Your task to perform on an android device: turn on location history Image 0: 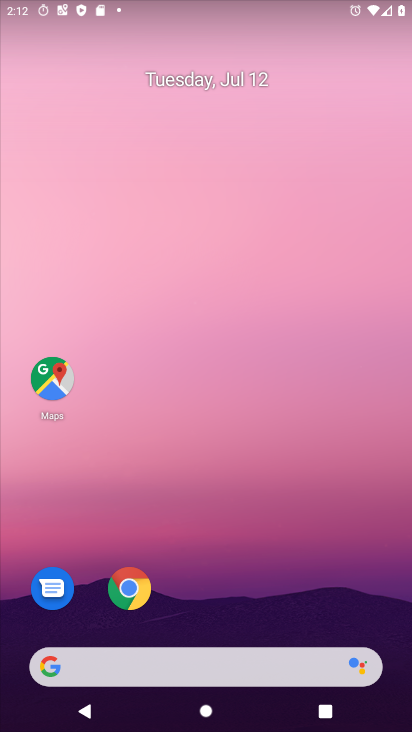
Step 0: click (207, 79)
Your task to perform on an android device: turn on location history Image 1: 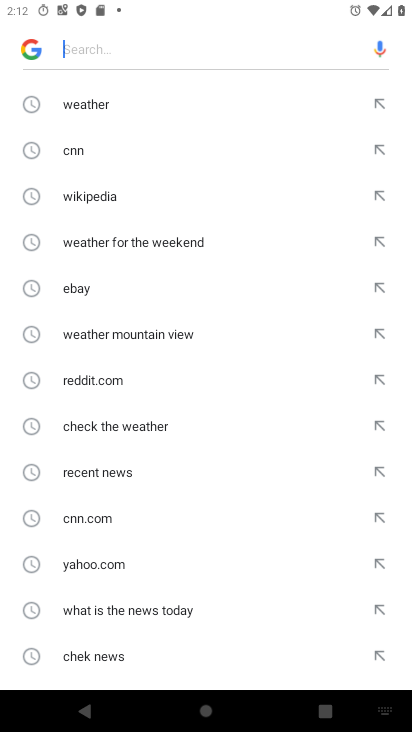
Step 1: press home button
Your task to perform on an android device: turn on location history Image 2: 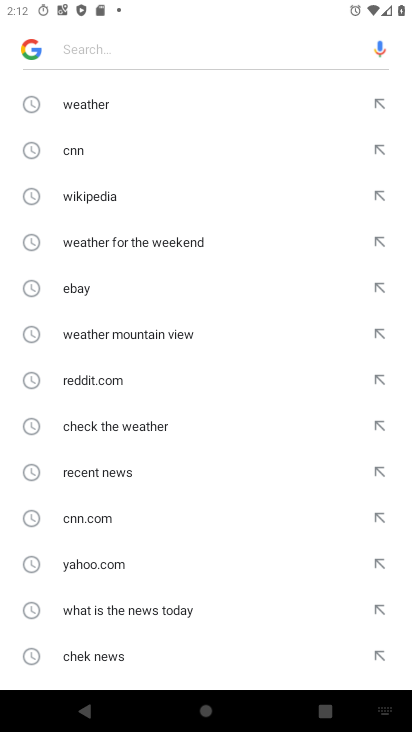
Step 2: press home button
Your task to perform on an android device: turn on location history Image 3: 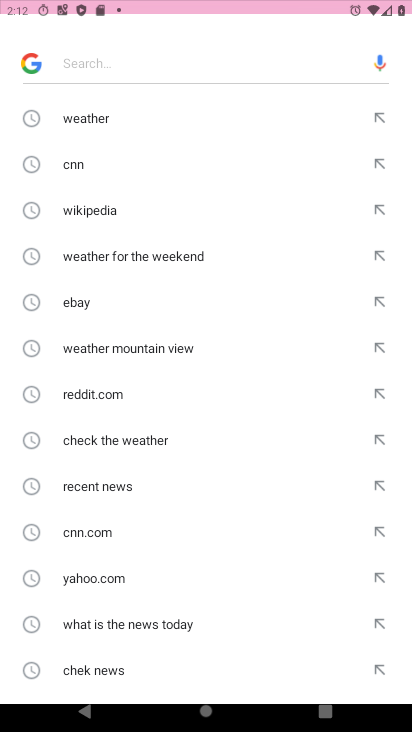
Step 3: drag from (190, 533) to (248, 2)
Your task to perform on an android device: turn on location history Image 4: 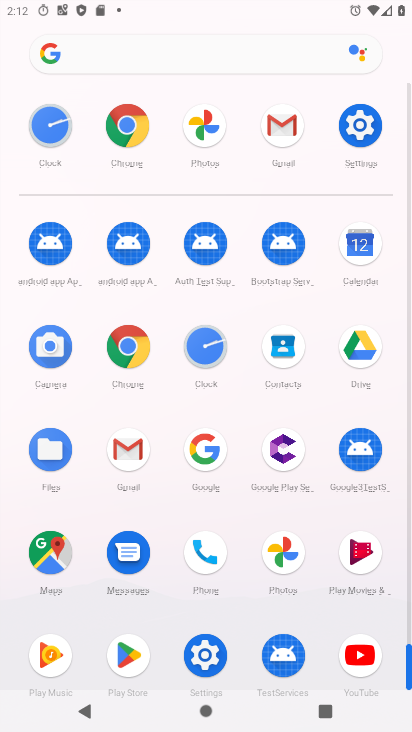
Step 4: click (198, 656)
Your task to perform on an android device: turn on location history Image 5: 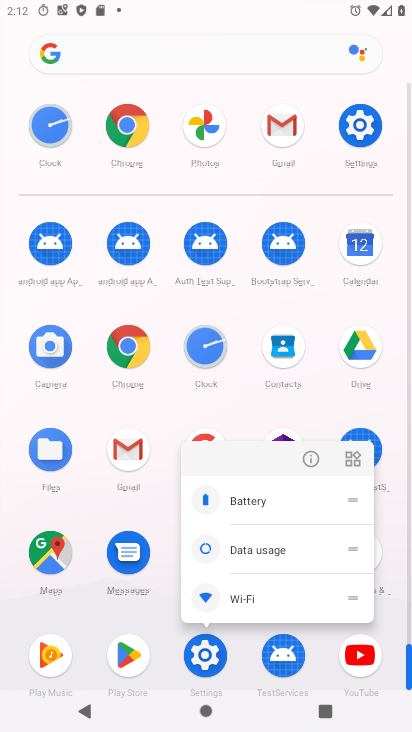
Step 5: click (311, 463)
Your task to perform on an android device: turn on location history Image 6: 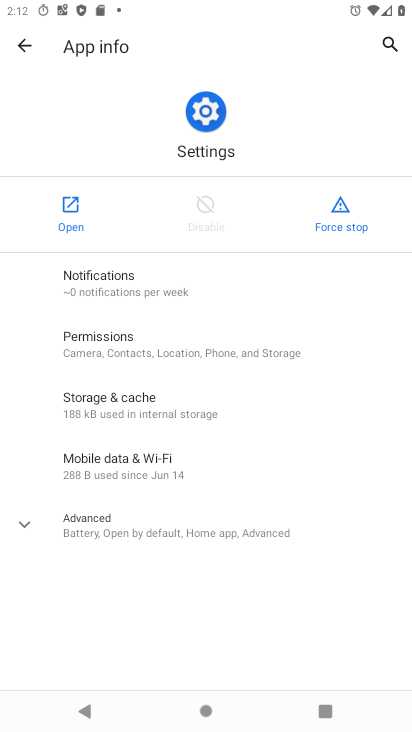
Step 6: click (70, 200)
Your task to perform on an android device: turn on location history Image 7: 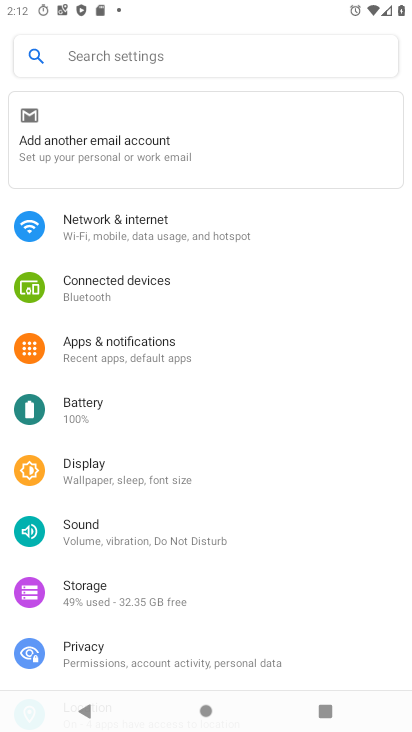
Step 7: drag from (153, 618) to (304, 0)
Your task to perform on an android device: turn on location history Image 8: 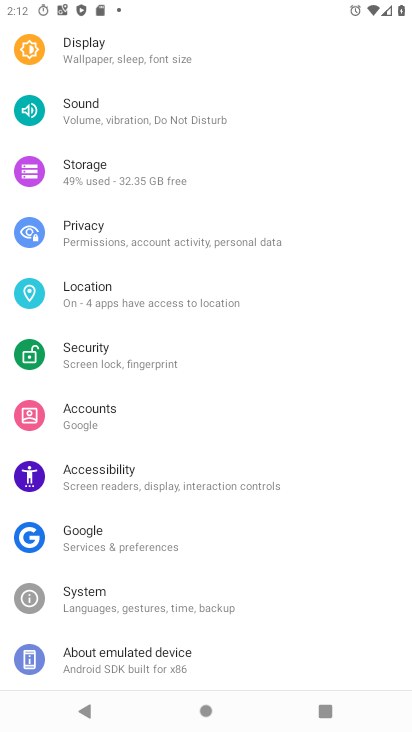
Step 8: drag from (154, 457) to (249, 137)
Your task to perform on an android device: turn on location history Image 9: 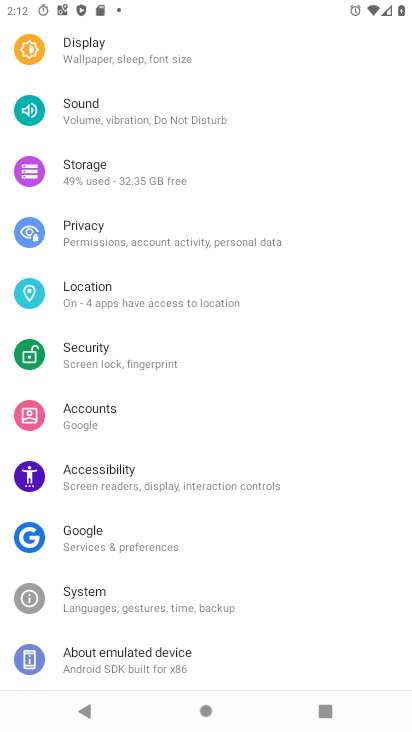
Step 9: click (94, 293)
Your task to perform on an android device: turn on location history Image 10: 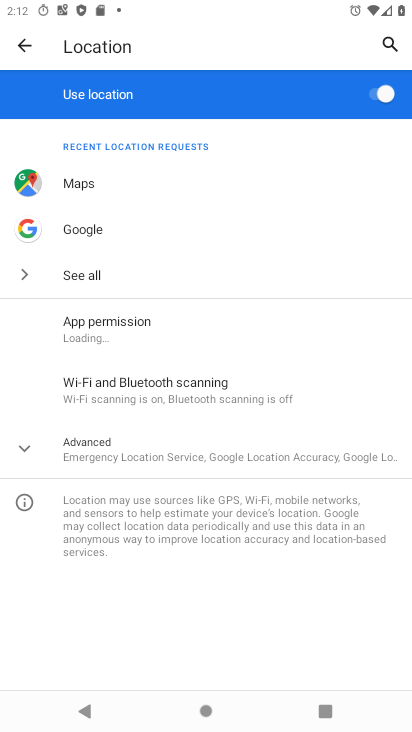
Step 10: click (179, 448)
Your task to perform on an android device: turn on location history Image 11: 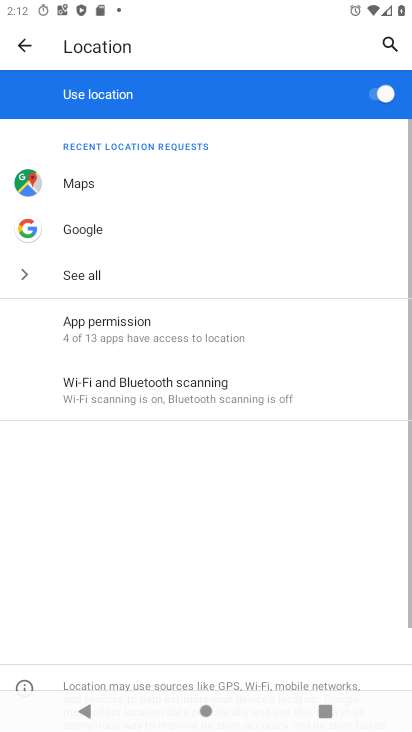
Step 11: drag from (223, 448) to (309, 241)
Your task to perform on an android device: turn on location history Image 12: 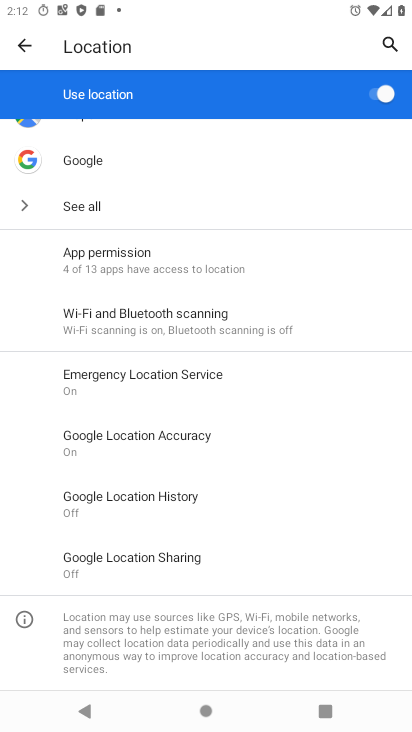
Step 12: click (141, 515)
Your task to perform on an android device: turn on location history Image 13: 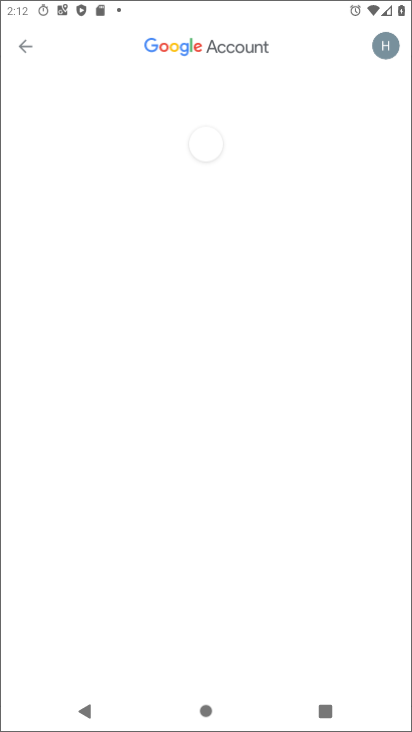
Step 13: drag from (242, 560) to (292, 229)
Your task to perform on an android device: turn on location history Image 14: 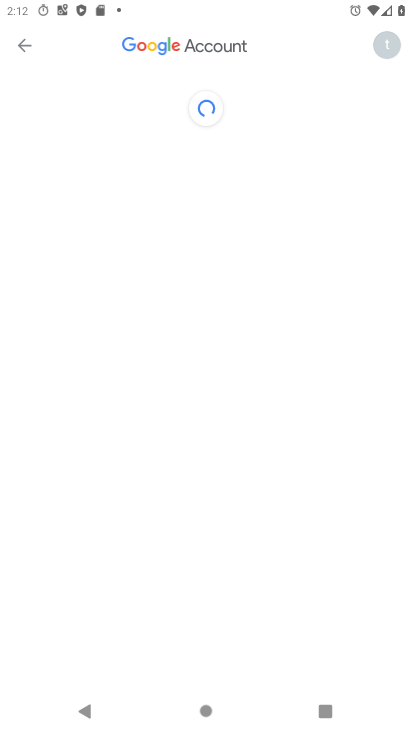
Step 14: drag from (323, 162) to (324, 528)
Your task to perform on an android device: turn on location history Image 15: 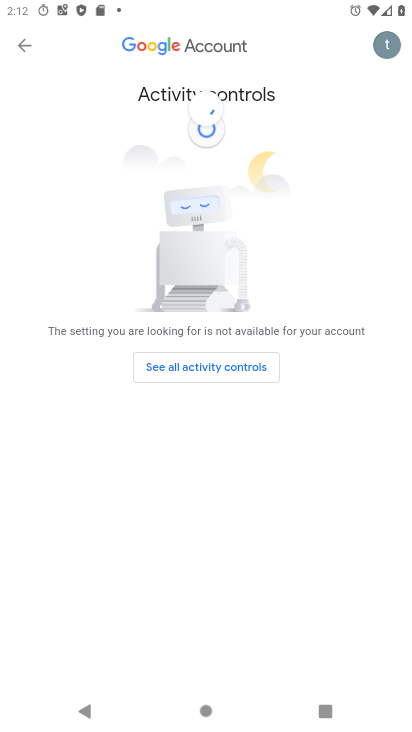
Step 15: click (177, 371)
Your task to perform on an android device: turn on location history Image 16: 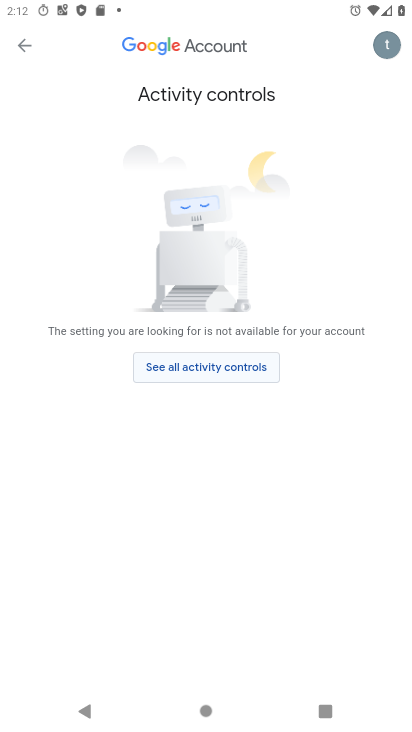
Step 16: click (206, 387)
Your task to perform on an android device: turn on location history Image 17: 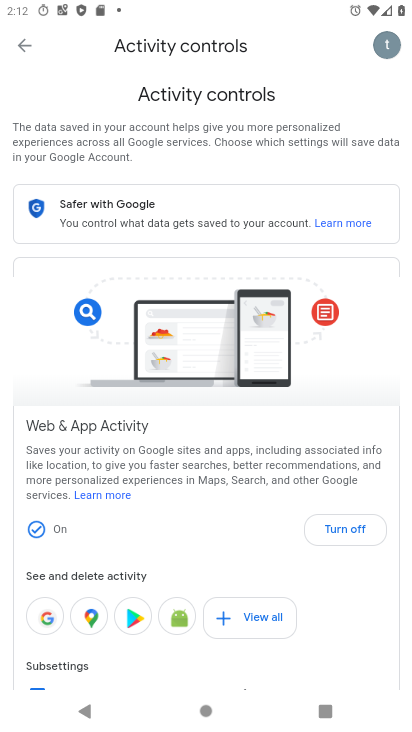
Step 17: task complete